Your task to perform on an android device: Go to battery settings Image 0: 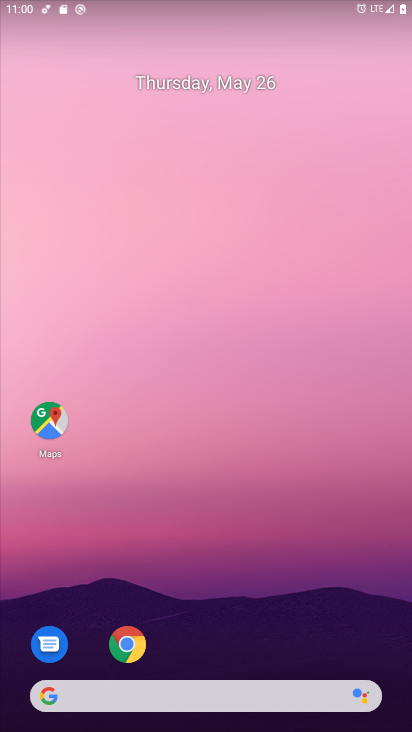
Step 0: drag from (361, 635) to (375, 221)
Your task to perform on an android device: Go to battery settings Image 1: 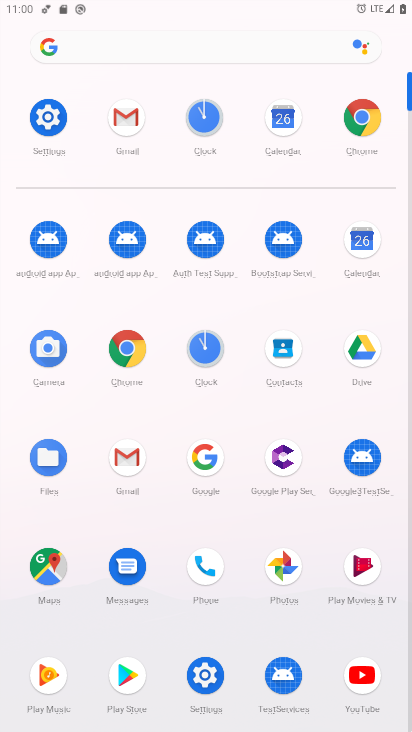
Step 1: click (48, 122)
Your task to perform on an android device: Go to battery settings Image 2: 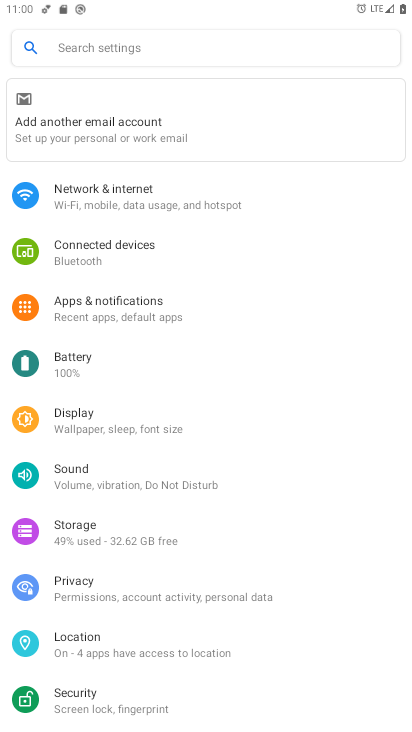
Step 2: drag from (371, 517) to (367, 416)
Your task to perform on an android device: Go to battery settings Image 3: 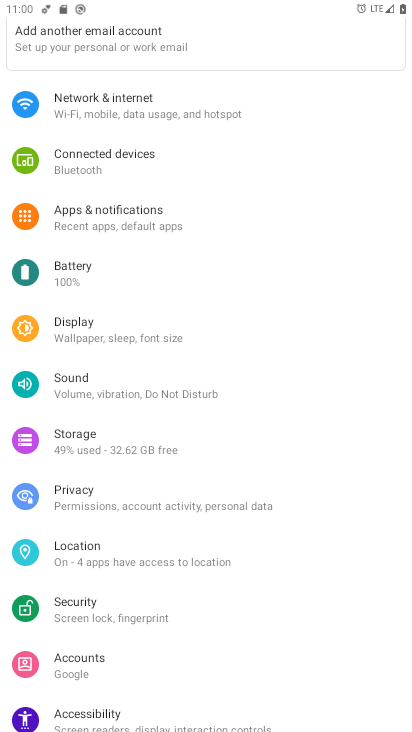
Step 3: drag from (352, 544) to (347, 452)
Your task to perform on an android device: Go to battery settings Image 4: 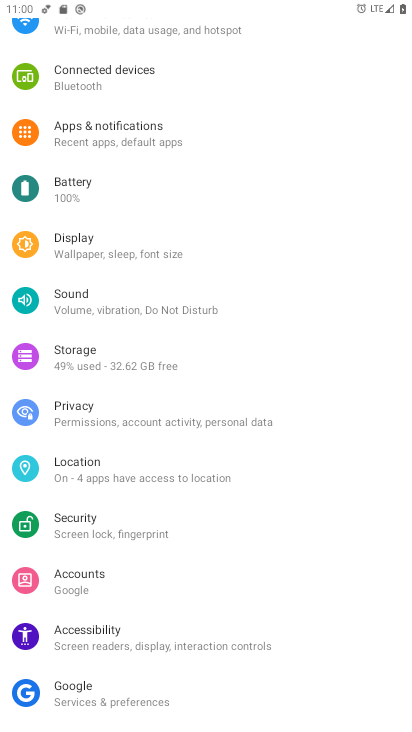
Step 4: drag from (336, 553) to (348, 457)
Your task to perform on an android device: Go to battery settings Image 5: 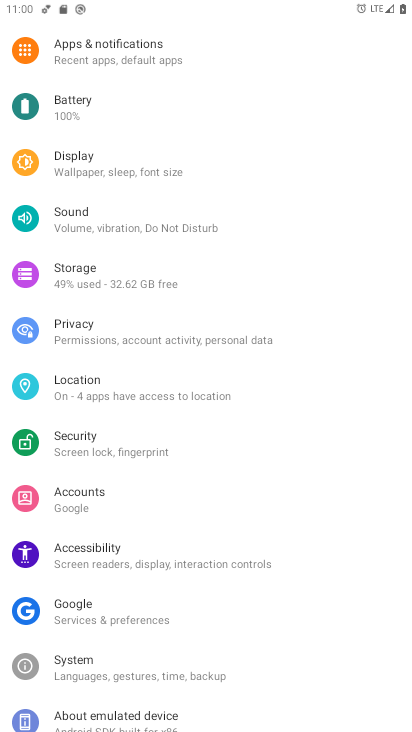
Step 5: drag from (365, 551) to (380, 444)
Your task to perform on an android device: Go to battery settings Image 6: 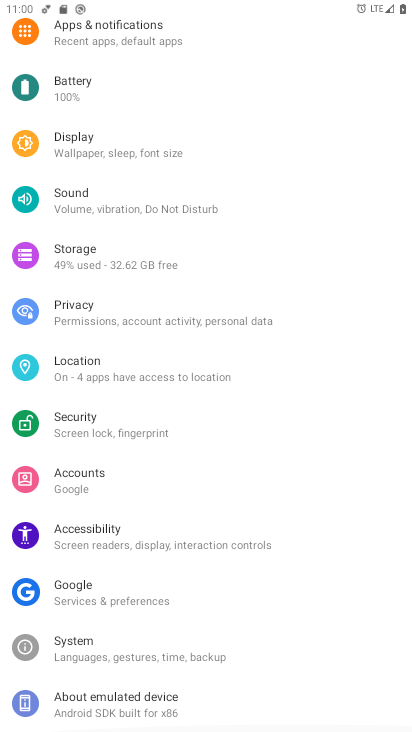
Step 6: drag from (355, 557) to (355, 432)
Your task to perform on an android device: Go to battery settings Image 7: 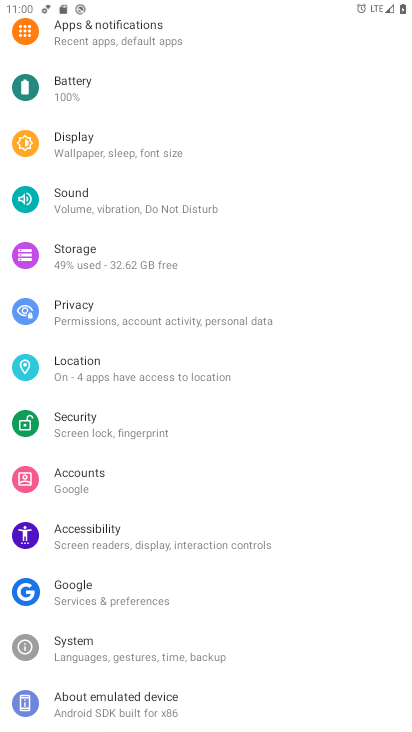
Step 7: drag from (347, 359) to (340, 440)
Your task to perform on an android device: Go to battery settings Image 8: 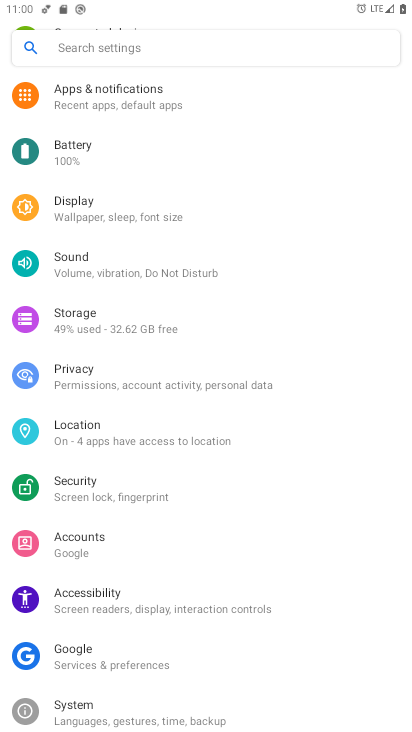
Step 8: drag from (345, 350) to (335, 428)
Your task to perform on an android device: Go to battery settings Image 9: 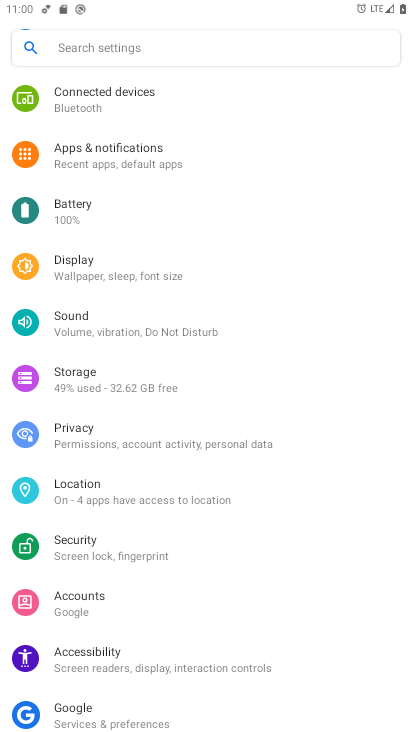
Step 9: drag from (350, 336) to (351, 418)
Your task to perform on an android device: Go to battery settings Image 10: 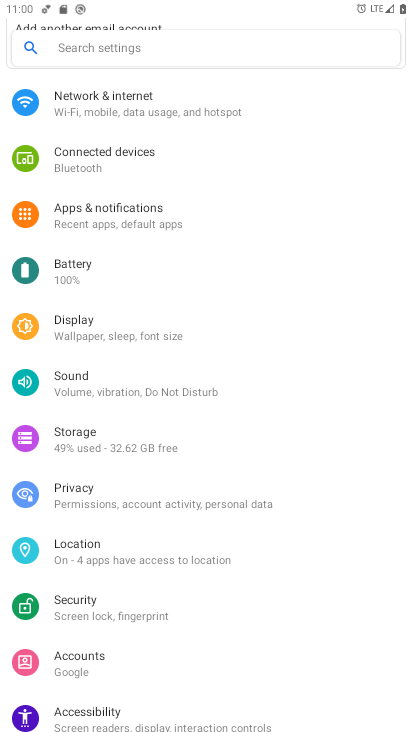
Step 10: drag from (356, 301) to (359, 405)
Your task to perform on an android device: Go to battery settings Image 11: 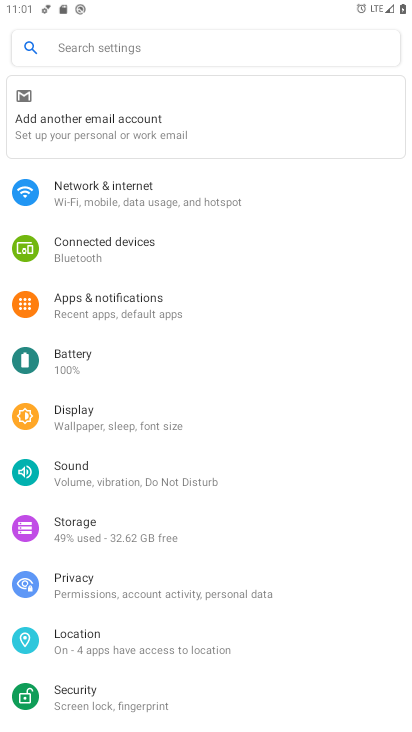
Step 11: click (161, 371)
Your task to perform on an android device: Go to battery settings Image 12: 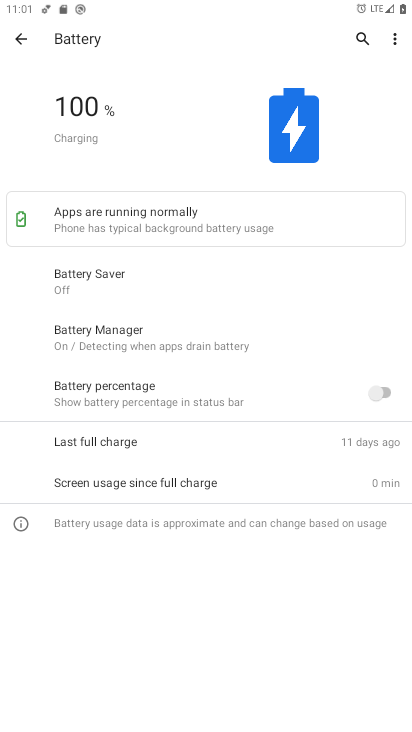
Step 12: task complete